Your task to perform on an android device: Toggle the flashlight Image 0: 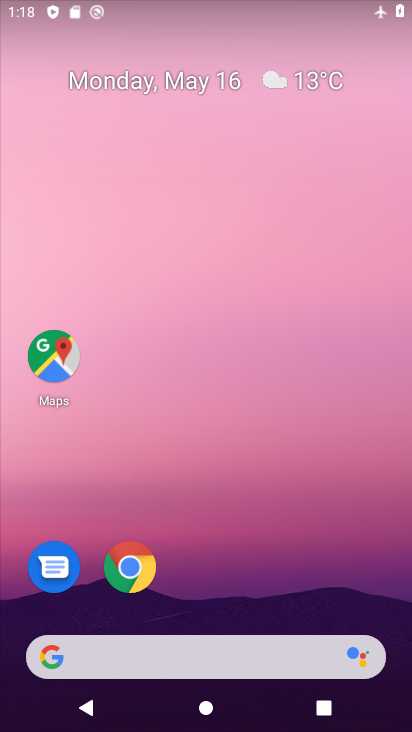
Step 0: drag from (259, 543) to (182, 95)
Your task to perform on an android device: Toggle the flashlight Image 1: 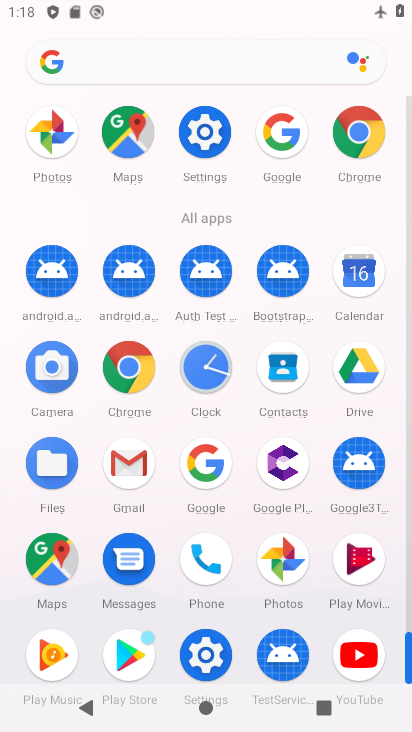
Step 1: click (202, 134)
Your task to perform on an android device: Toggle the flashlight Image 2: 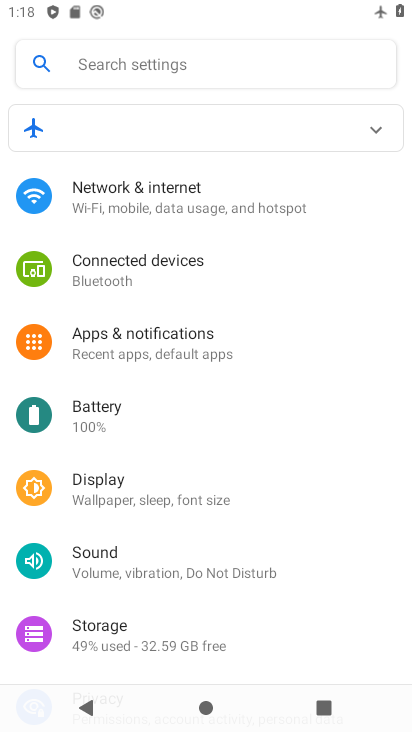
Step 2: click (152, 323)
Your task to perform on an android device: Toggle the flashlight Image 3: 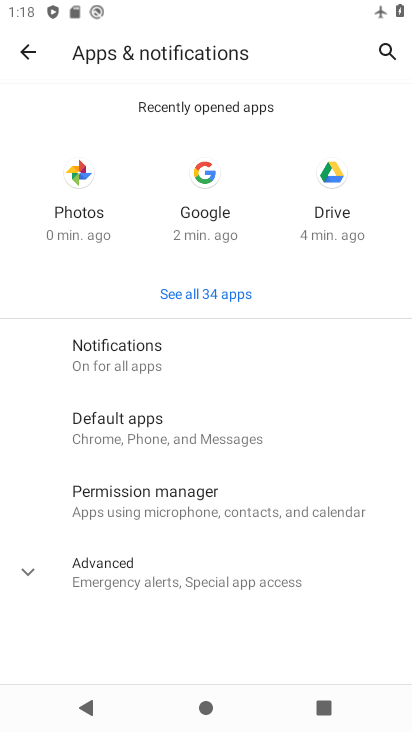
Step 3: click (26, 53)
Your task to perform on an android device: Toggle the flashlight Image 4: 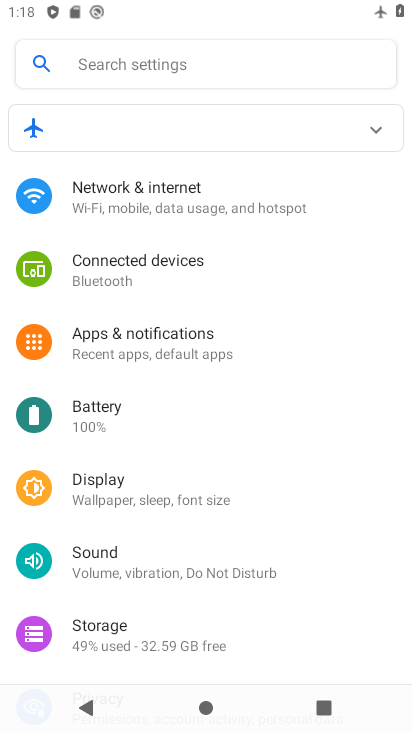
Step 4: click (95, 413)
Your task to perform on an android device: Toggle the flashlight Image 5: 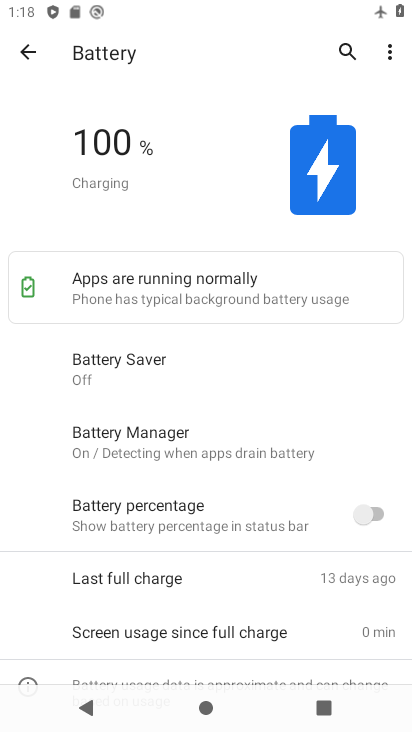
Step 5: task complete